Your task to perform on an android device: Show me popular videos on Youtube Image 0: 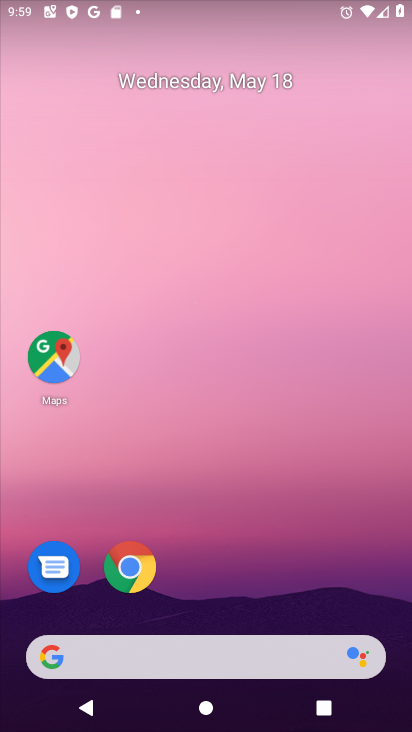
Step 0: drag from (196, 651) to (146, 1)
Your task to perform on an android device: Show me popular videos on Youtube Image 1: 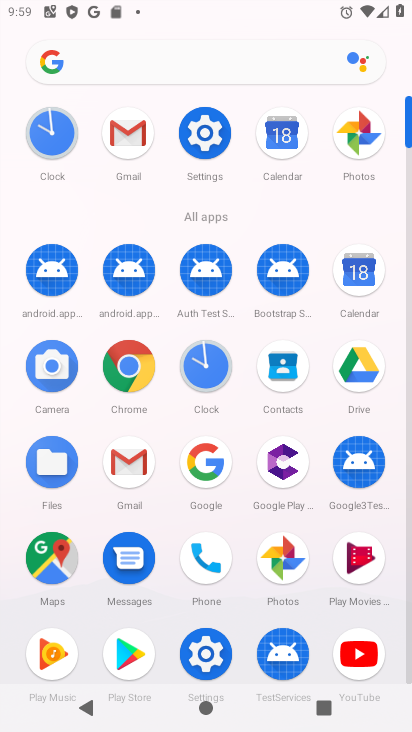
Step 1: click (363, 651)
Your task to perform on an android device: Show me popular videos on Youtube Image 2: 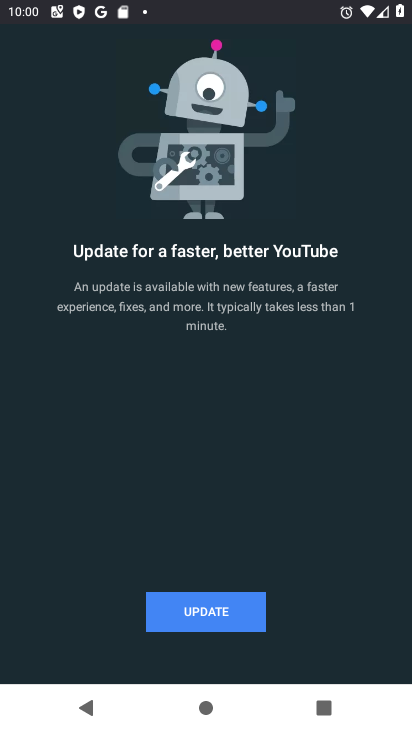
Step 2: click (202, 614)
Your task to perform on an android device: Show me popular videos on Youtube Image 3: 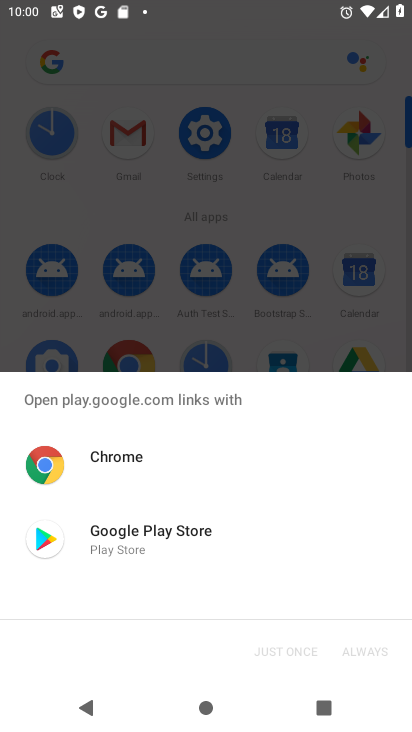
Step 3: click (316, 614)
Your task to perform on an android device: Show me popular videos on Youtube Image 4: 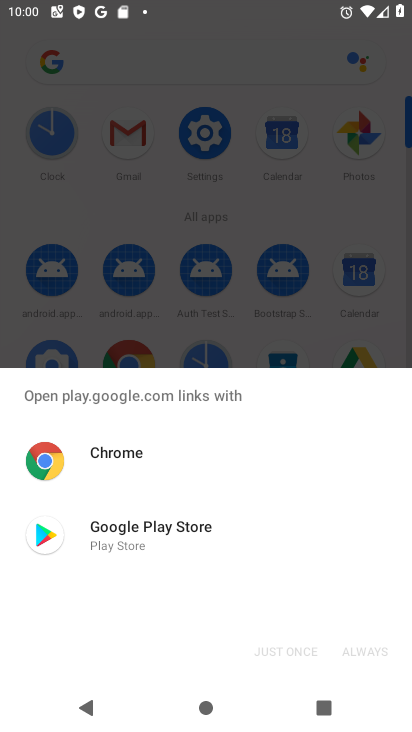
Step 4: click (133, 541)
Your task to perform on an android device: Show me popular videos on Youtube Image 5: 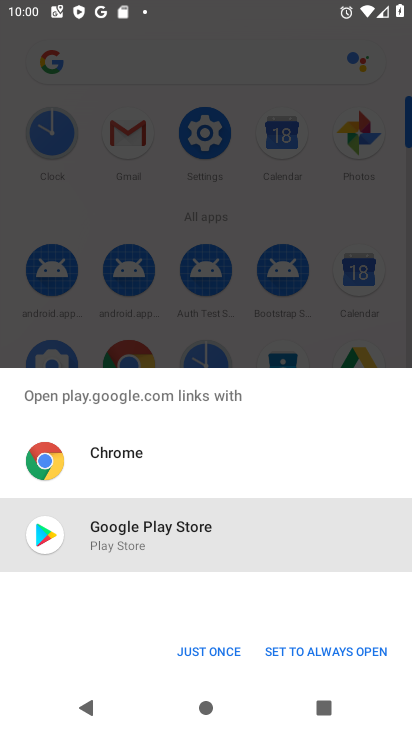
Step 5: click (208, 646)
Your task to perform on an android device: Show me popular videos on Youtube Image 6: 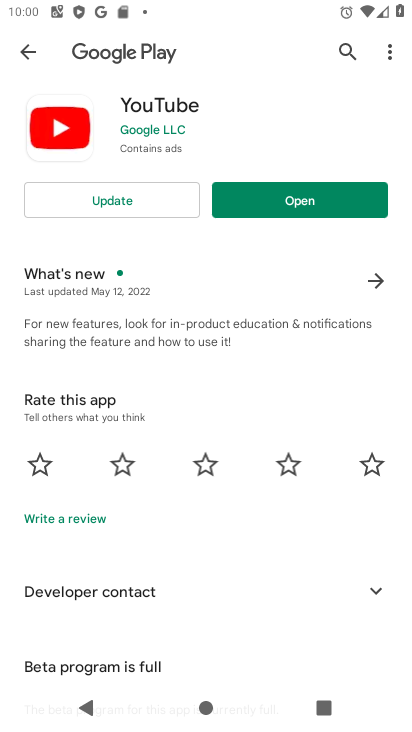
Step 6: click (109, 204)
Your task to perform on an android device: Show me popular videos on Youtube Image 7: 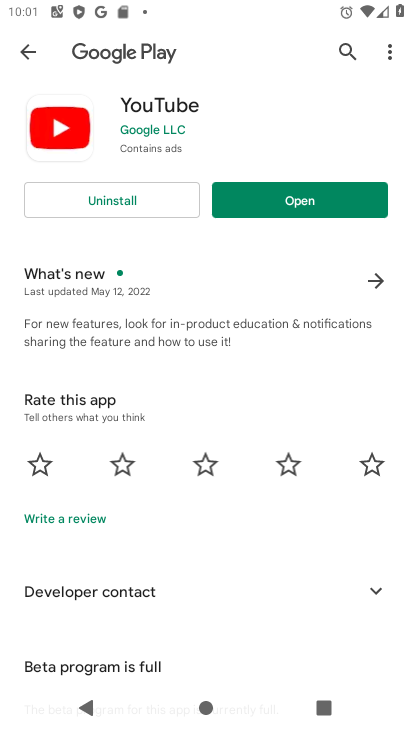
Step 7: click (261, 209)
Your task to perform on an android device: Show me popular videos on Youtube Image 8: 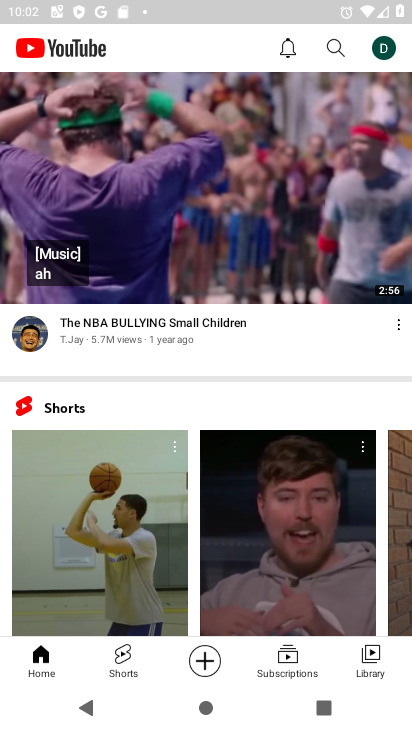
Step 8: task complete